Your task to perform on an android device: Add apple airpods to the cart on walmart.com, then select checkout. Image 0: 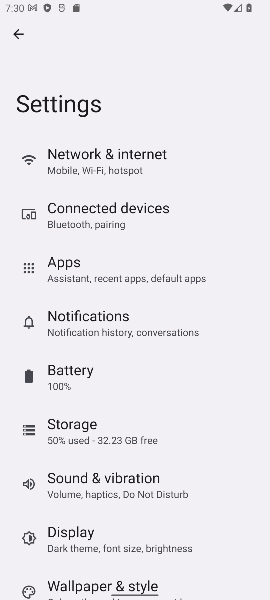
Step 0: press home button
Your task to perform on an android device: Add apple airpods to the cart on walmart.com, then select checkout. Image 1: 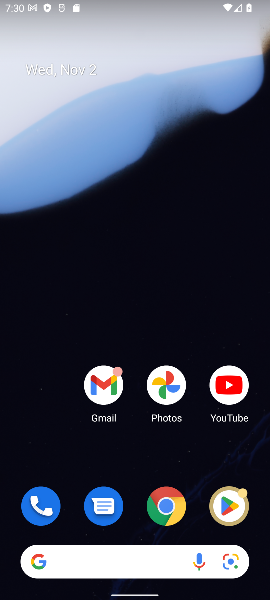
Step 1: click (123, 555)
Your task to perform on an android device: Add apple airpods to the cart on walmart.com, then select checkout. Image 2: 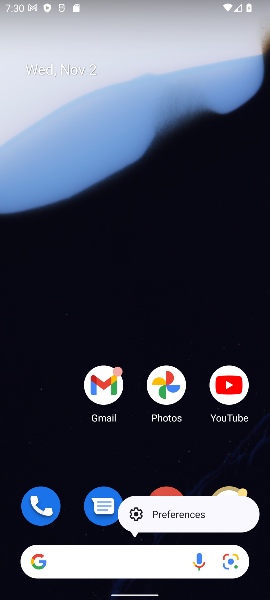
Step 2: click (80, 564)
Your task to perform on an android device: Add apple airpods to the cart on walmart.com, then select checkout. Image 3: 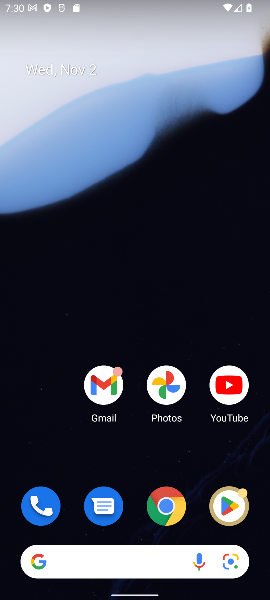
Step 3: click (80, 564)
Your task to perform on an android device: Add apple airpods to the cart on walmart.com, then select checkout. Image 4: 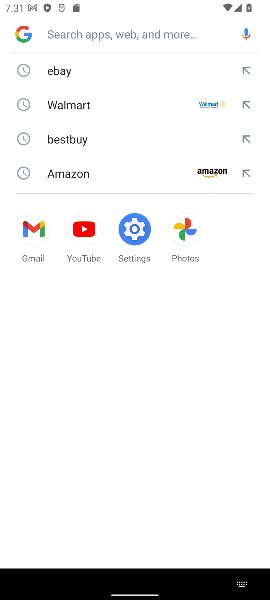
Step 4: type "walmart.com"
Your task to perform on an android device: Add apple airpods to the cart on walmart.com, then select checkout. Image 5: 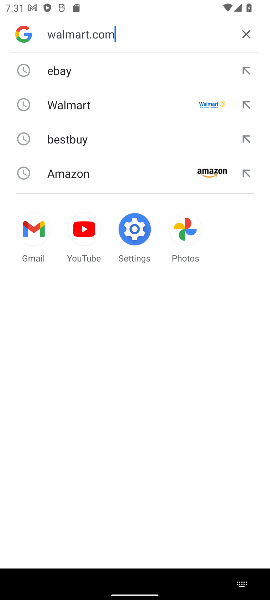
Step 5: type ""
Your task to perform on an android device: Add apple airpods to the cart on walmart.com, then select checkout. Image 6: 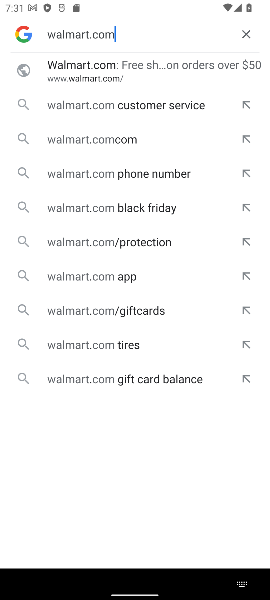
Step 6: press enter
Your task to perform on an android device: Add apple airpods to the cart on walmart.com, then select checkout. Image 7: 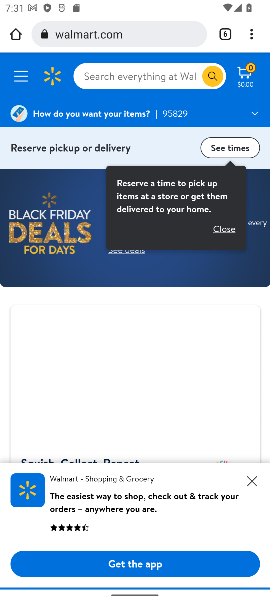
Step 7: click (103, 75)
Your task to perform on an android device: Add apple airpods to the cart on walmart.com, then select checkout. Image 8: 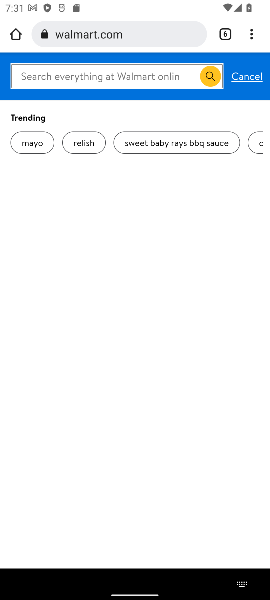
Step 8: type "apple airpods"
Your task to perform on an android device: Add apple airpods to the cart on walmart.com, then select checkout. Image 9: 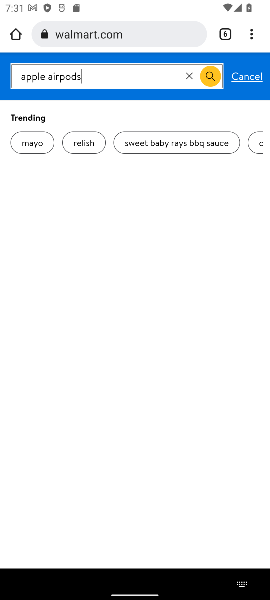
Step 9: type ""
Your task to perform on an android device: Add apple airpods to the cart on walmart.com, then select checkout. Image 10: 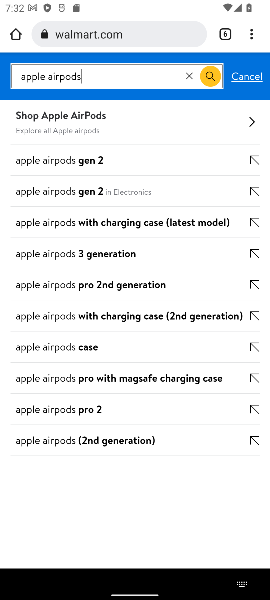
Step 10: press enter
Your task to perform on an android device: Add apple airpods to the cart on walmart.com, then select checkout. Image 11: 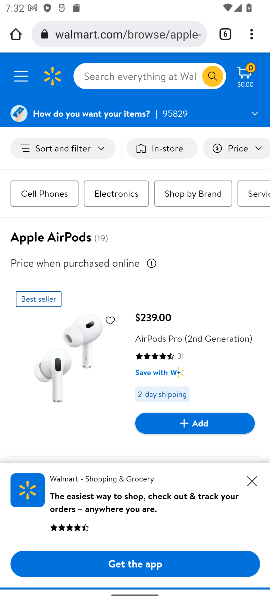
Step 11: click (195, 429)
Your task to perform on an android device: Add apple airpods to the cart on walmart.com, then select checkout. Image 12: 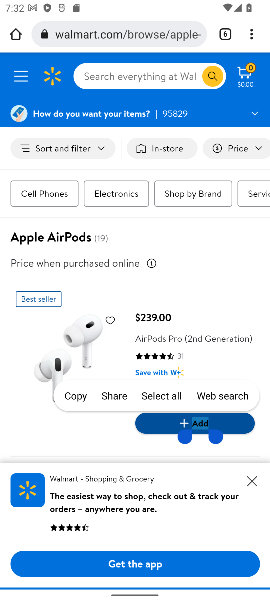
Step 12: click (195, 429)
Your task to perform on an android device: Add apple airpods to the cart on walmart.com, then select checkout. Image 13: 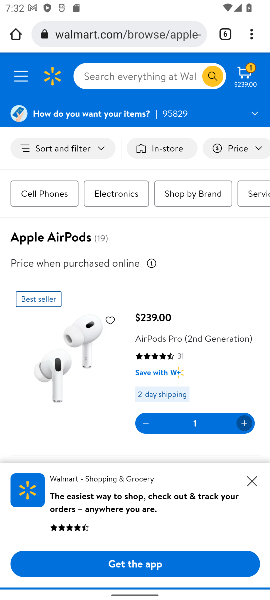
Step 13: task complete